Your task to perform on an android device: Open accessibility settings Image 0: 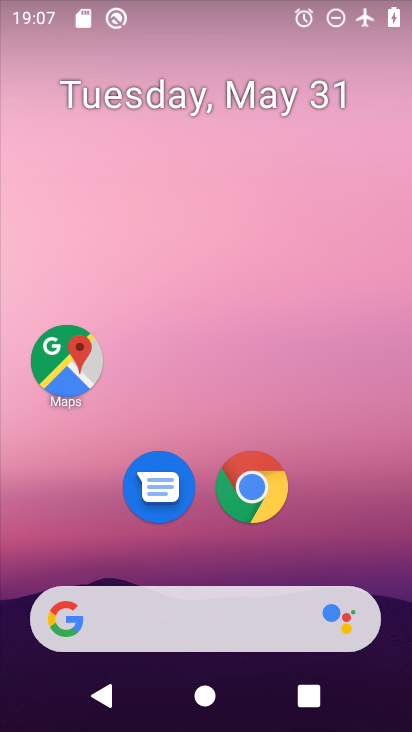
Step 0: drag from (308, 537) to (179, 63)
Your task to perform on an android device: Open accessibility settings Image 1: 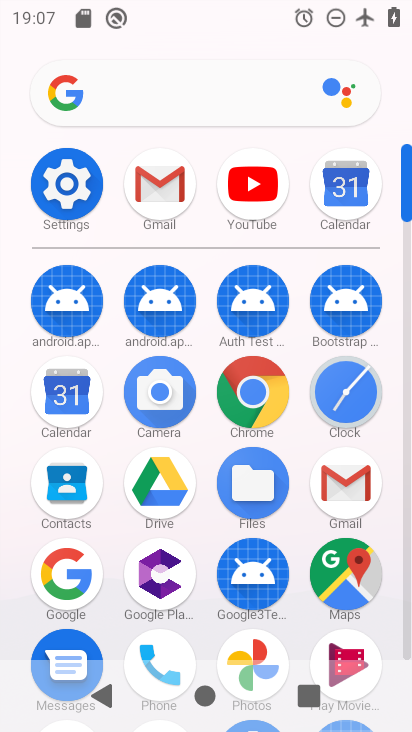
Step 1: click (69, 182)
Your task to perform on an android device: Open accessibility settings Image 2: 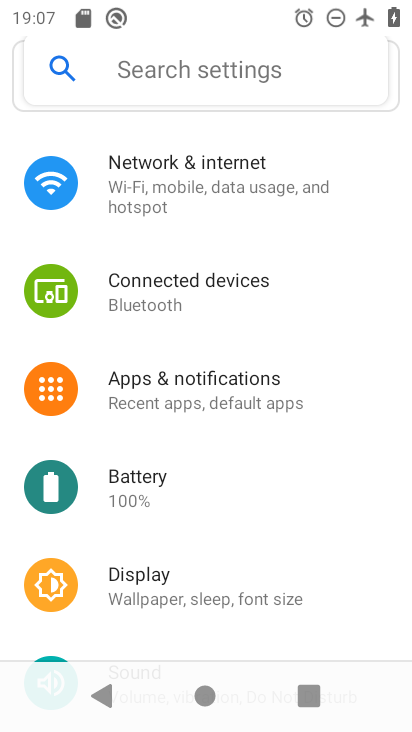
Step 2: drag from (242, 501) to (177, 170)
Your task to perform on an android device: Open accessibility settings Image 3: 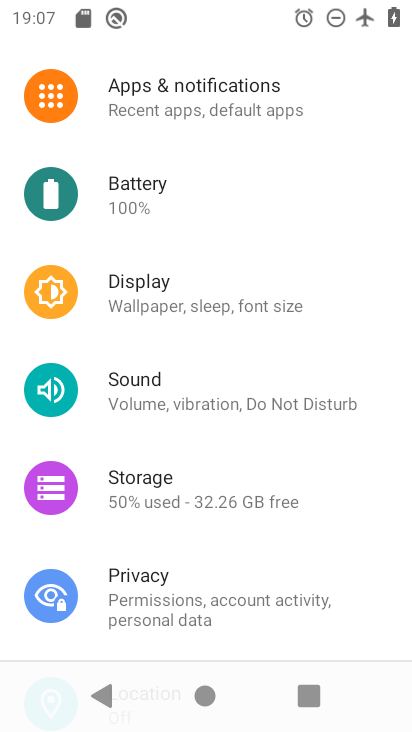
Step 3: drag from (311, 535) to (299, 181)
Your task to perform on an android device: Open accessibility settings Image 4: 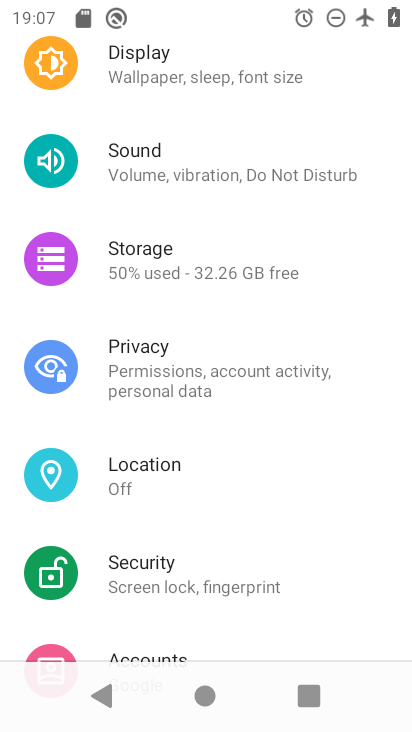
Step 4: drag from (209, 501) to (187, 109)
Your task to perform on an android device: Open accessibility settings Image 5: 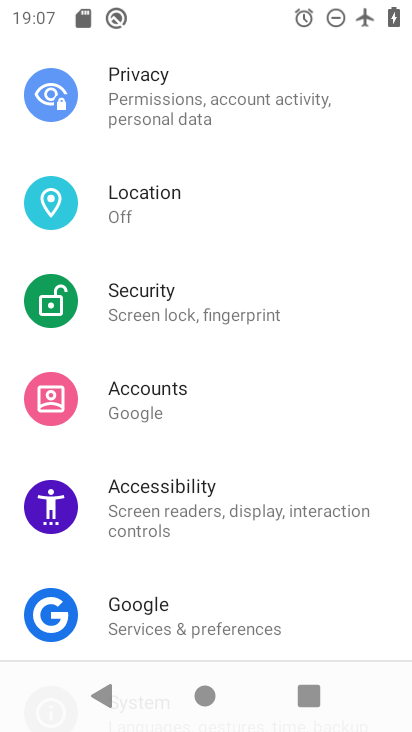
Step 5: click (158, 484)
Your task to perform on an android device: Open accessibility settings Image 6: 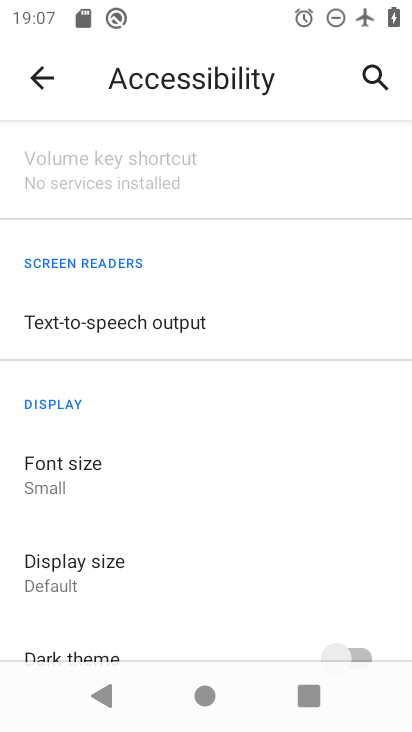
Step 6: task complete